Your task to perform on an android device: set an alarm Image 0: 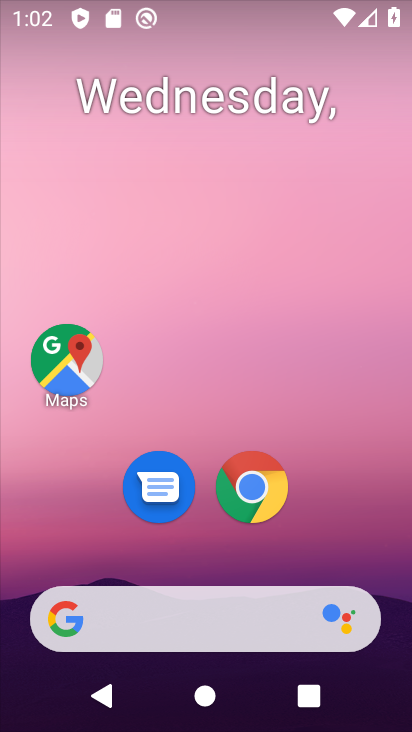
Step 0: drag from (378, 554) to (280, 69)
Your task to perform on an android device: set an alarm Image 1: 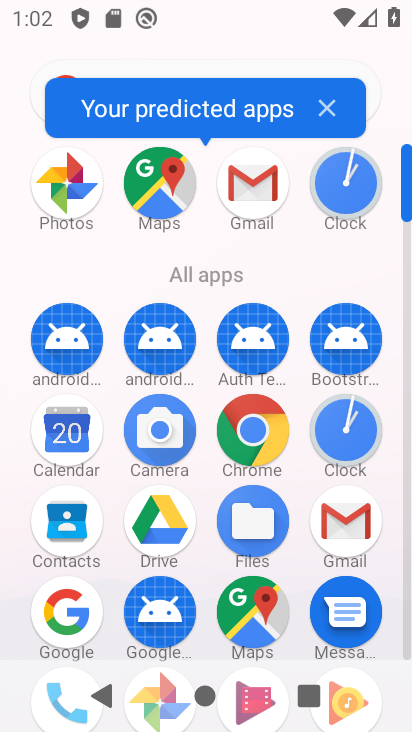
Step 1: click (327, 178)
Your task to perform on an android device: set an alarm Image 2: 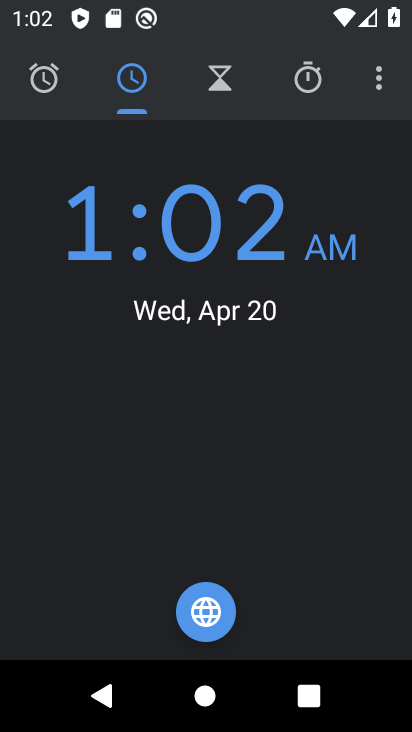
Step 2: click (68, 84)
Your task to perform on an android device: set an alarm Image 3: 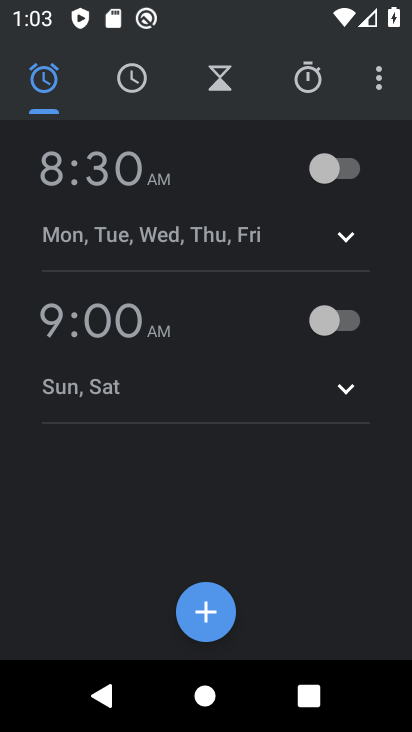
Step 3: click (219, 626)
Your task to perform on an android device: set an alarm Image 4: 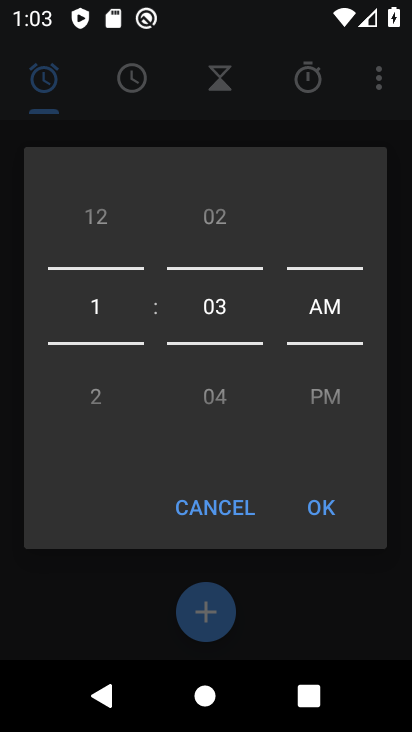
Step 4: click (327, 511)
Your task to perform on an android device: set an alarm Image 5: 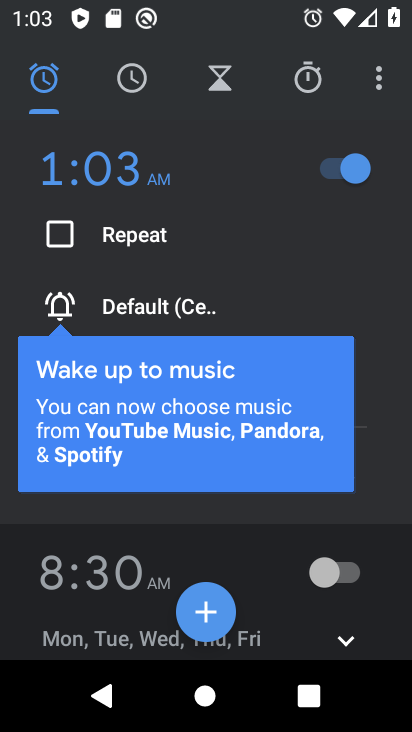
Step 5: task complete